Your task to perform on an android device: change the clock style Image 0: 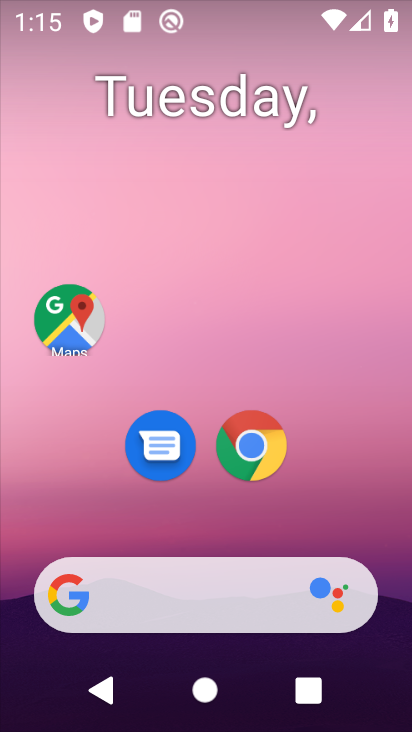
Step 0: press home button
Your task to perform on an android device: change the clock style Image 1: 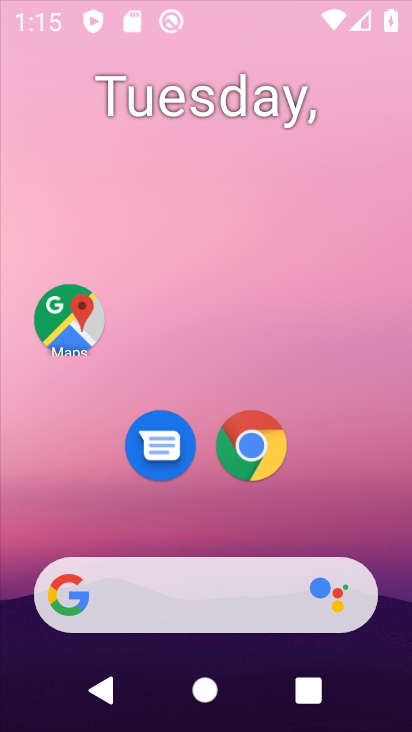
Step 1: drag from (209, 538) to (215, 146)
Your task to perform on an android device: change the clock style Image 2: 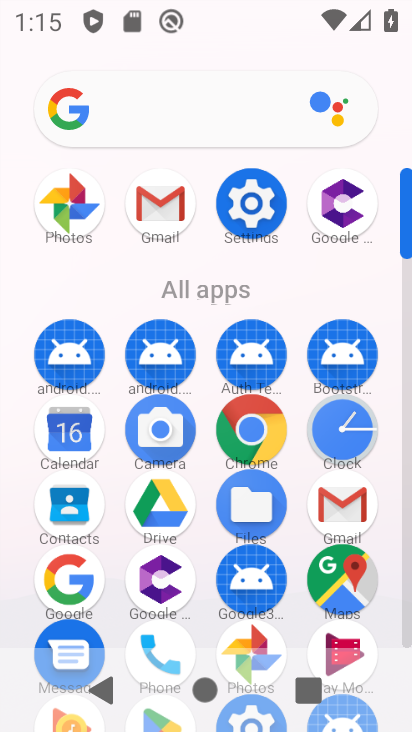
Step 2: click (339, 421)
Your task to perform on an android device: change the clock style Image 3: 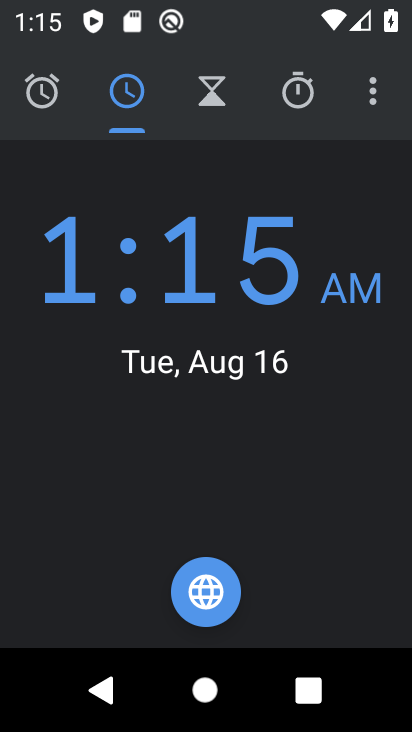
Step 3: click (377, 93)
Your task to perform on an android device: change the clock style Image 4: 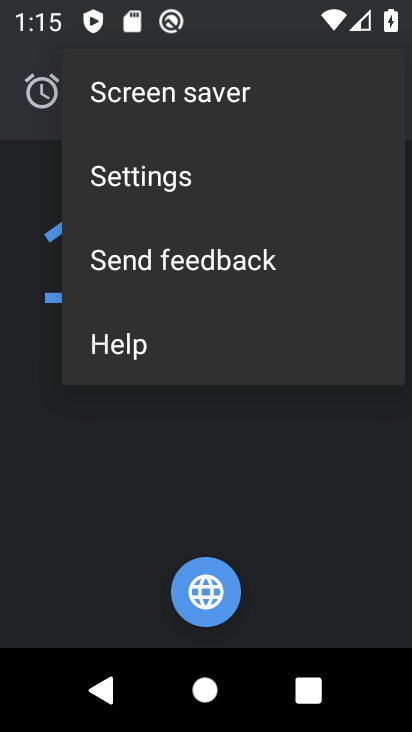
Step 4: click (211, 177)
Your task to perform on an android device: change the clock style Image 5: 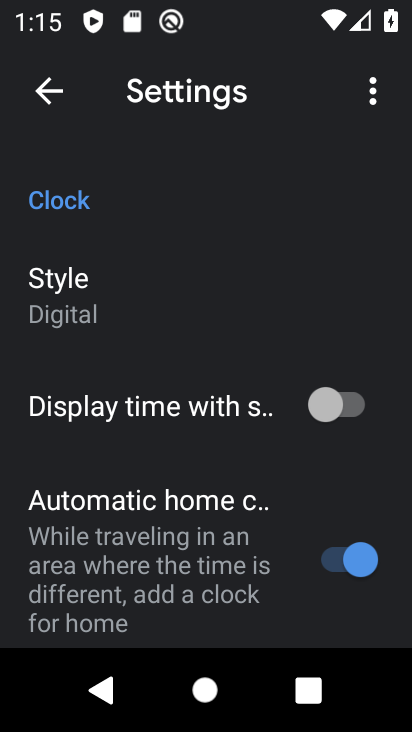
Step 5: click (132, 297)
Your task to perform on an android device: change the clock style Image 6: 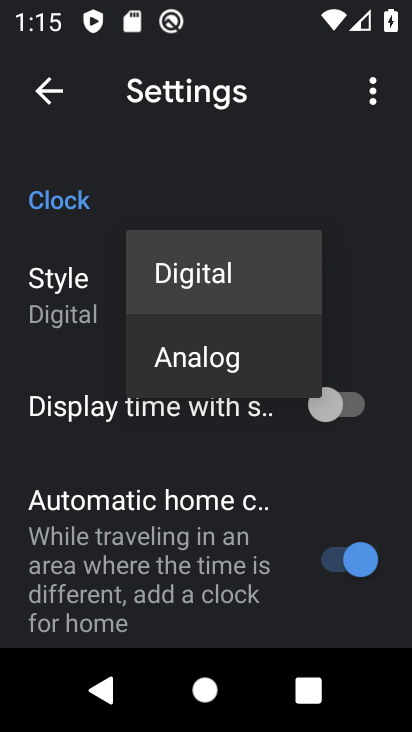
Step 6: click (220, 379)
Your task to perform on an android device: change the clock style Image 7: 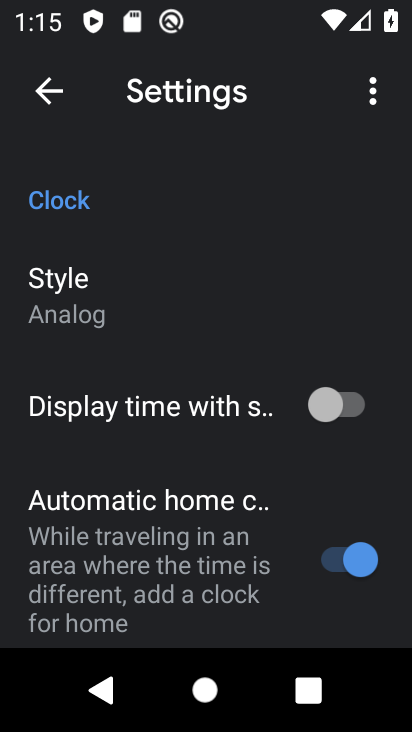
Step 7: task complete